Your task to perform on an android device: turn off sleep mode Image 0: 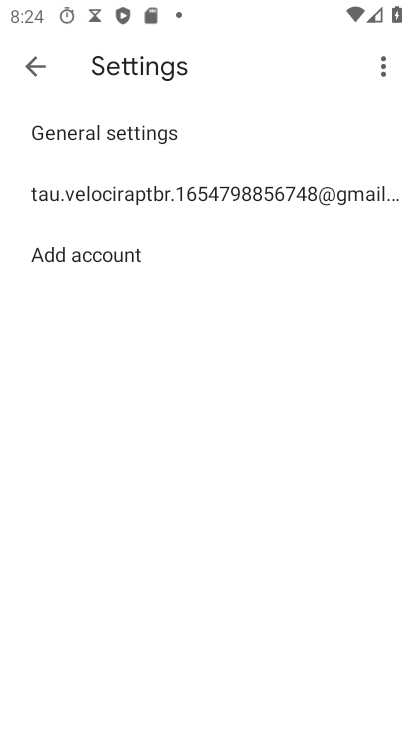
Step 0: press home button
Your task to perform on an android device: turn off sleep mode Image 1: 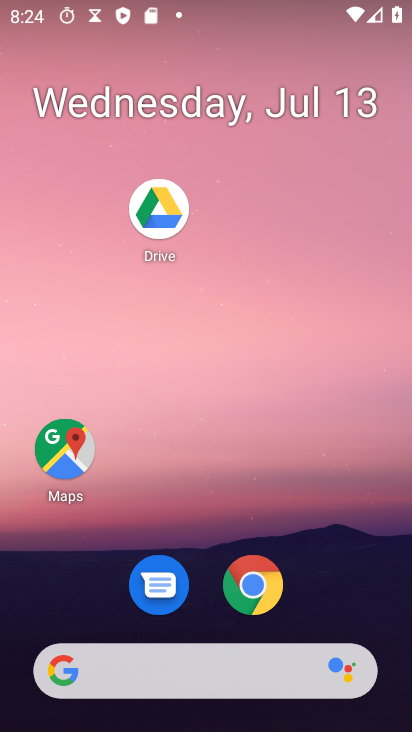
Step 1: drag from (268, 456) to (381, 24)
Your task to perform on an android device: turn off sleep mode Image 2: 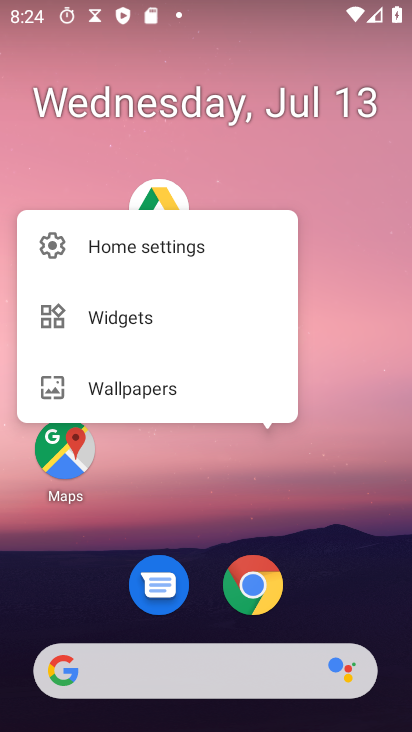
Step 2: drag from (305, 570) to (392, 31)
Your task to perform on an android device: turn off sleep mode Image 3: 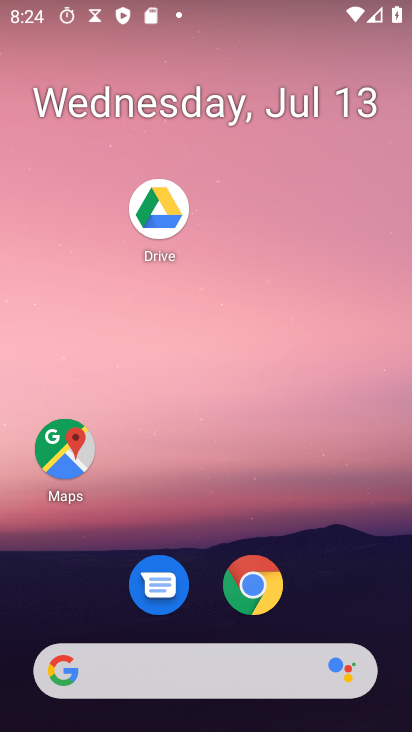
Step 3: drag from (155, 663) to (305, 18)
Your task to perform on an android device: turn off sleep mode Image 4: 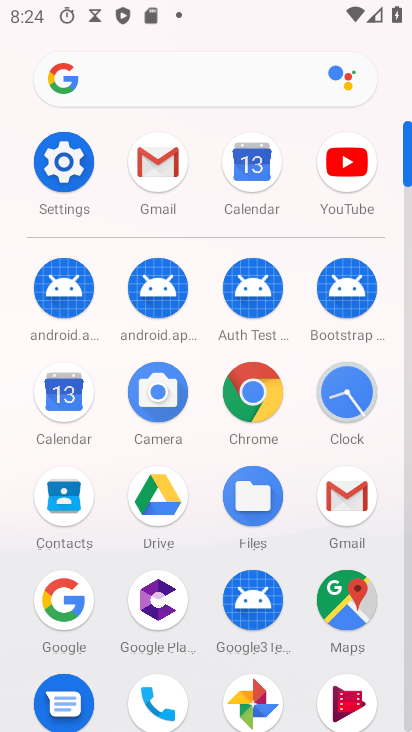
Step 4: click (68, 165)
Your task to perform on an android device: turn off sleep mode Image 5: 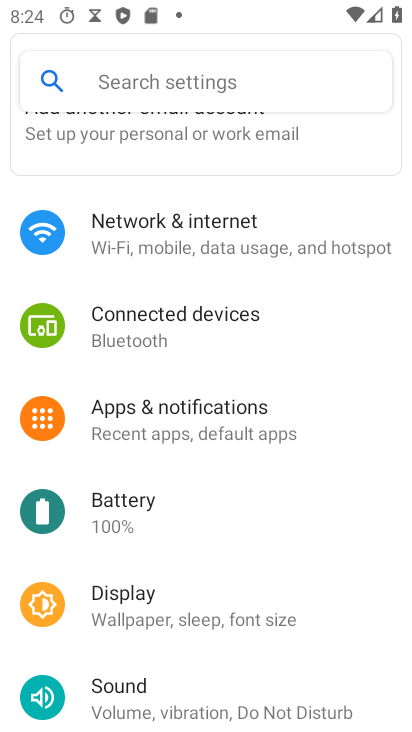
Step 5: click (197, 605)
Your task to perform on an android device: turn off sleep mode Image 6: 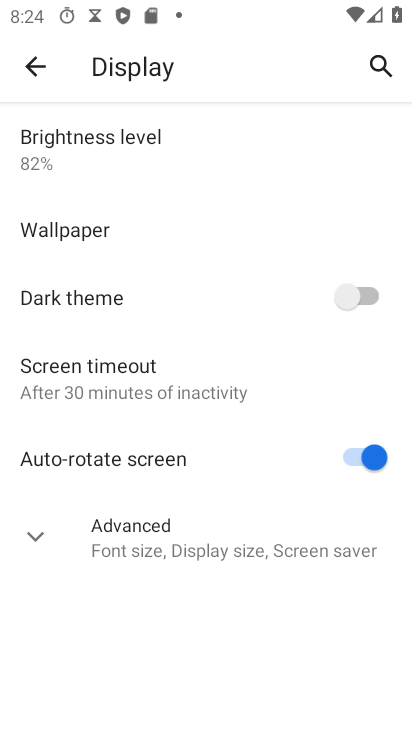
Step 6: click (173, 550)
Your task to perform on an android device: turn off sleep mode Image 7: 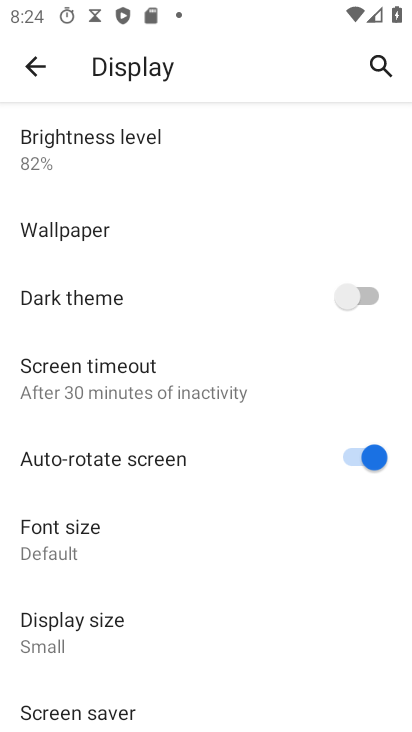
Step 7: task complete